Your task to perform on an android device: add a label to a message in the gmail app Image 0: 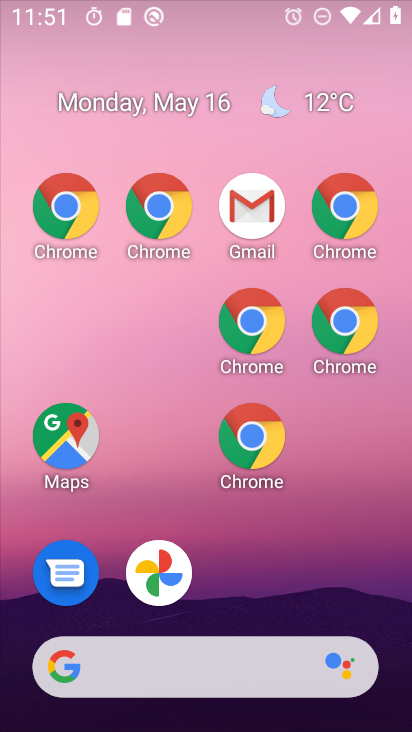
Step 0: drag from (355, 652) to (46, 197)
Your task to perform on an android device: add a label to a message in the gmail app Image 1: 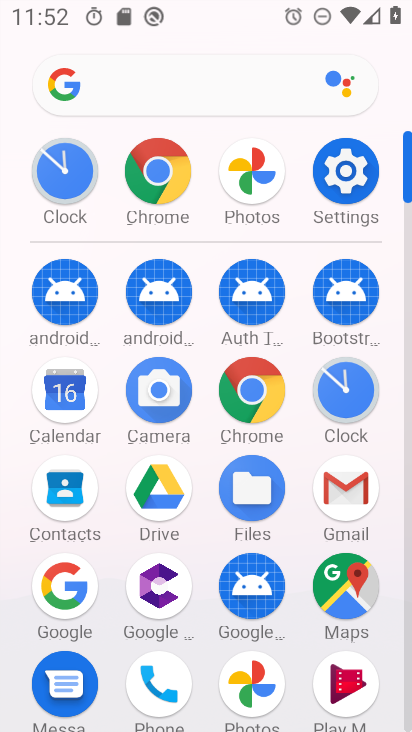
Step 1: click (352, 482)
Your task to perform on an android device: add a label to a message in the gmail app Image 2: 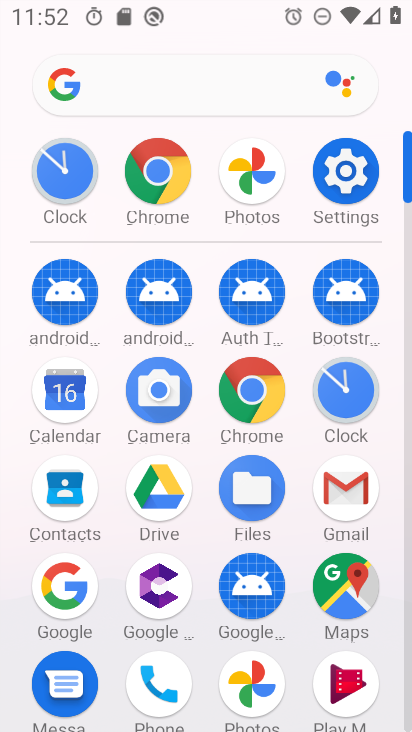
Step 2: click (352, 504)
Your task to perform on an android device: add a label to a message in the gmail app Image 3: 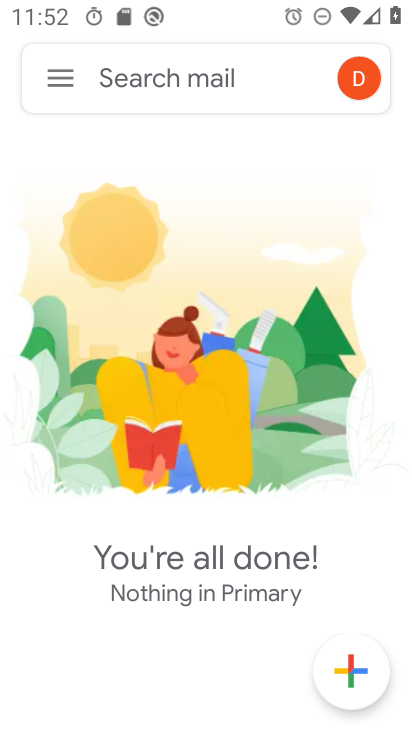
Step 3: click (62, 87)
Your task to perform on an android device: add a label to a message in the gmail app Image 4: 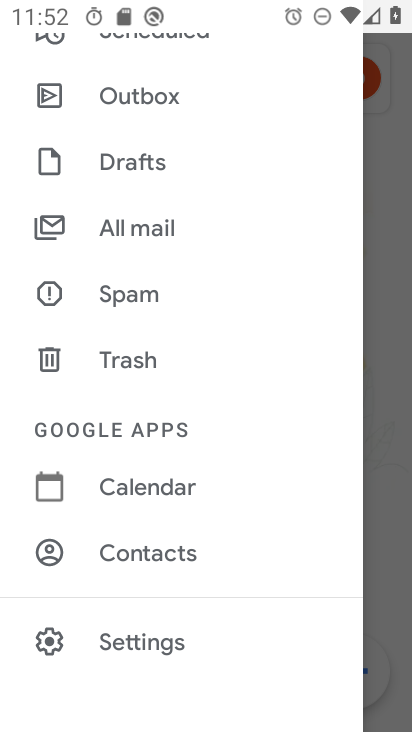
Step 4: click (131, 227)
Your task to perform on an android device: add a label to a message in the gmail app Image 5: 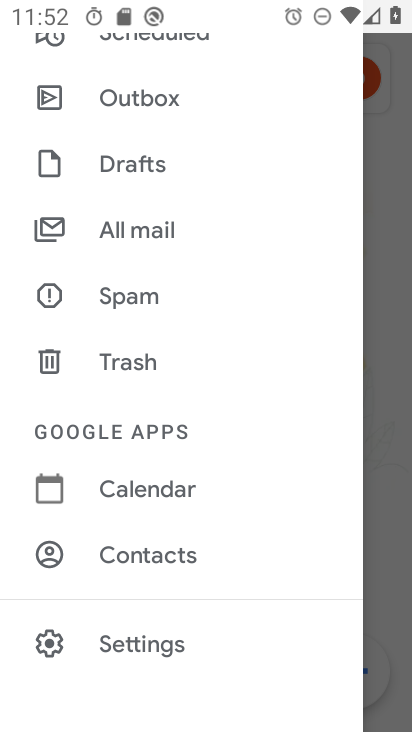
Step 5: click (135, 229)
Your task to perform on an android device: add a label to a message in the gmail app Image 6: 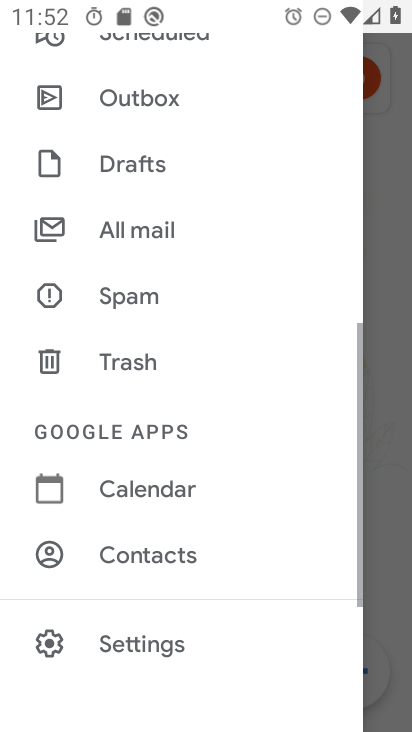
Step 6: click (135, 229)
Your task to perform on an android device: add a label to a message in the gmail app Image 7: 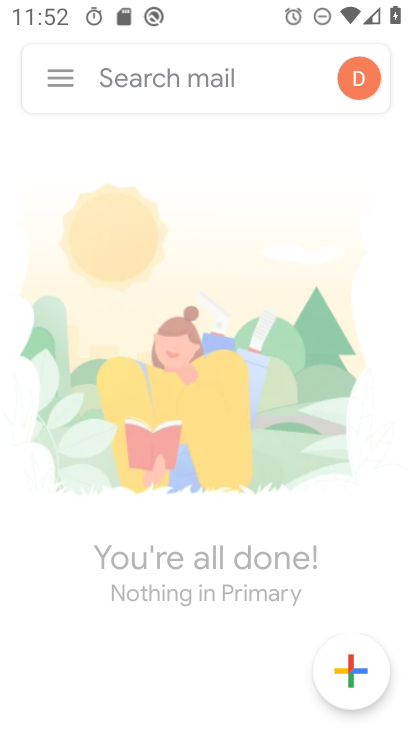
Step 7: click (113, 212)
Your task to perform on an android device: add a label to a message in the gmail app Image 8: 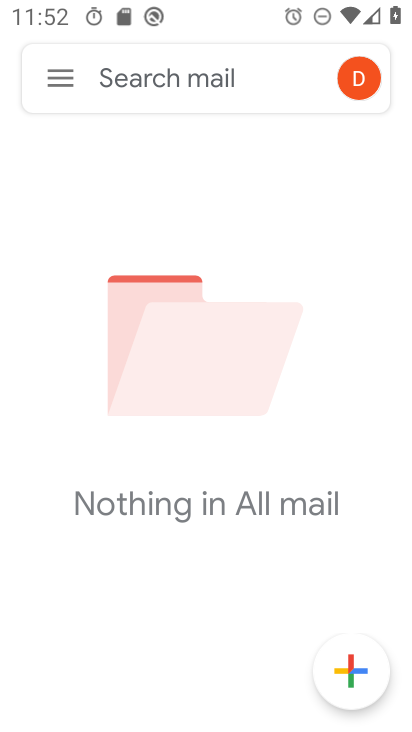
Step 8: click (114, 200)
Your task to perform on an android device: add a label to a message in the gmail app Image 9: 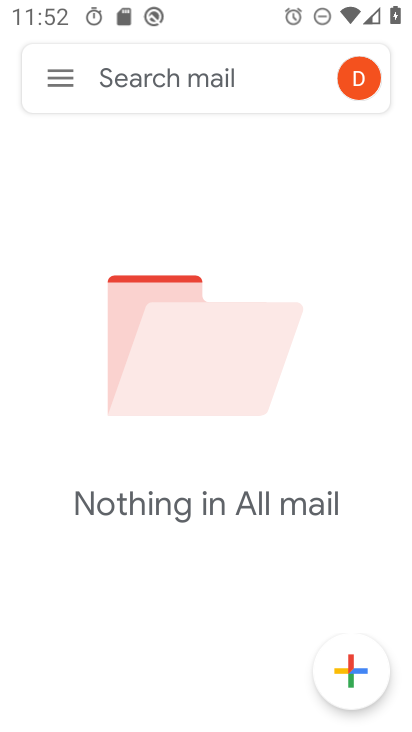
Step 9: task complete